Your task to perform on an android device: Open battery settings Image 0: 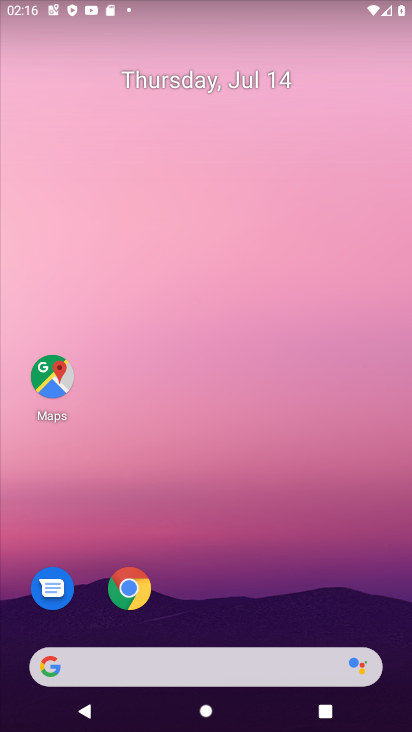
Step 0: drag from (247, 684) to (172, 87)
Your task to perform on an android device: Open battery settings Image 1: 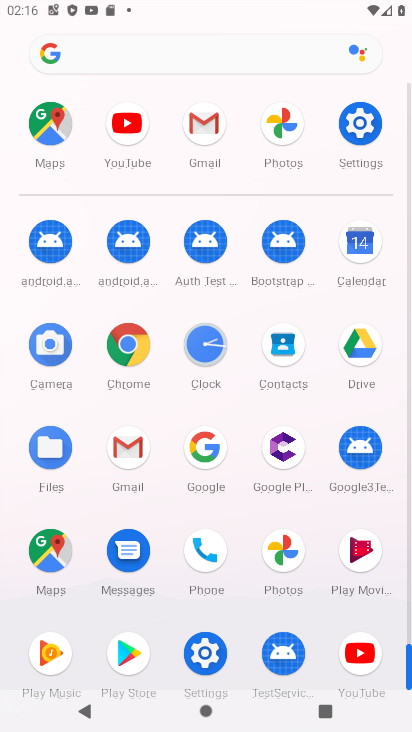
Step 1: click (351, 119)
Your task to perform on an android device: Open battery settings Image 2: 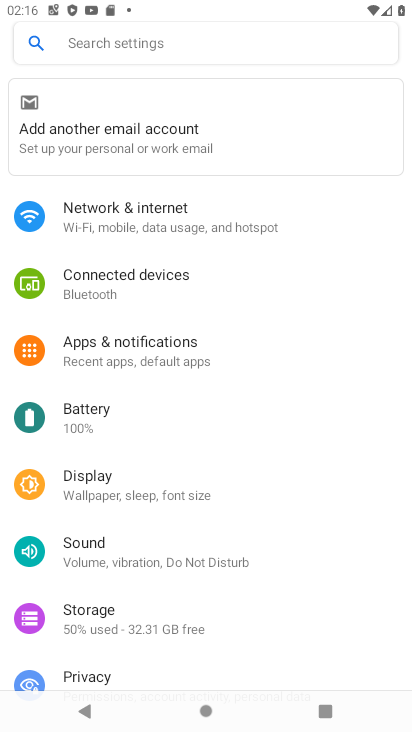
Step 2: click (113, 414)
Your task to perform on an android device: Open battery settings Image 3: 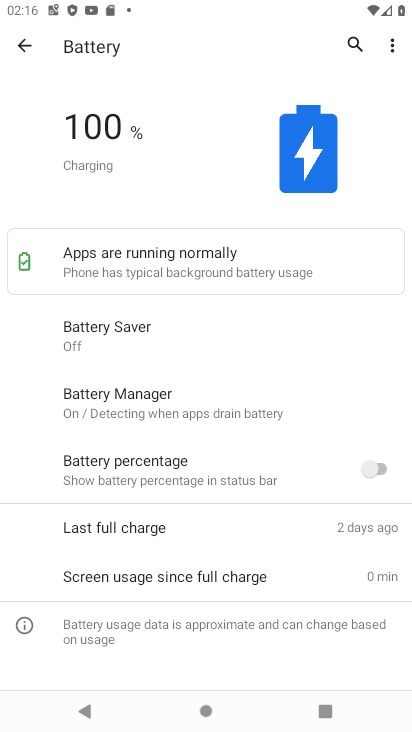
Step 3: task complete